Your task to perform on an android device: add a label to a message in the gmail app Image 0: 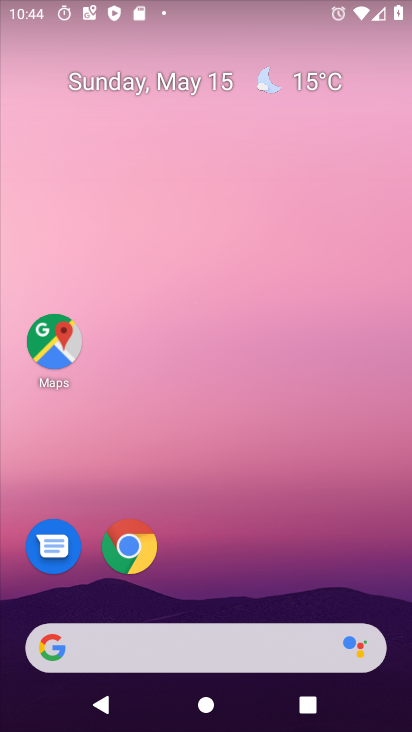
Step 0: drag from (357, 624) to (213, 59)
Your task to perform on an android device: add a label to a message in the gmail app Image 1: 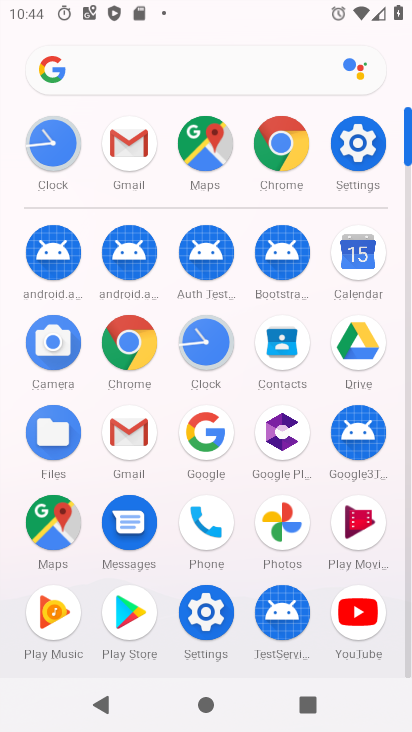
Step 1: click (138, 441)
Your task to perform on an android device: add a label to a message in the gmail app Image 2: 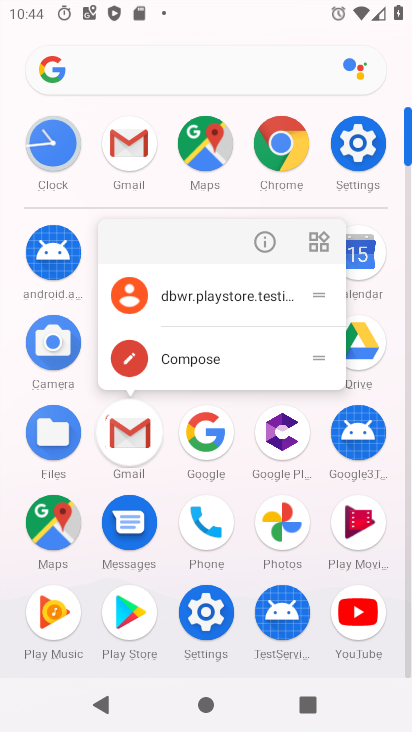
Step 2: click (138, 441)
Your task to perform on an android device: add a label to a message in the gmail app Image 3: 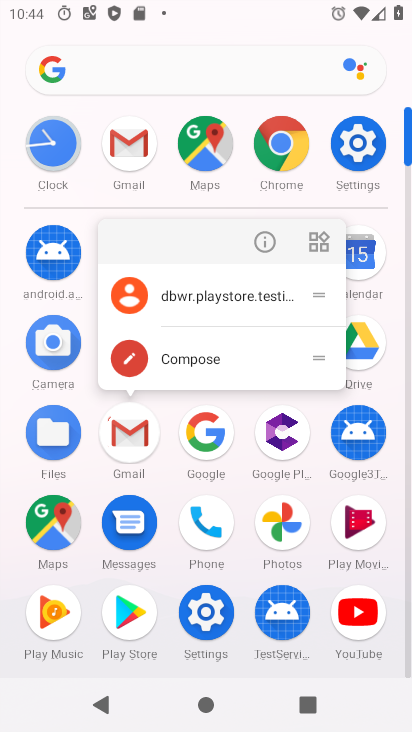
Step 3: click (138, 441)
Your task to perform on an android device: add a label to a message in the gmail app Image 4: 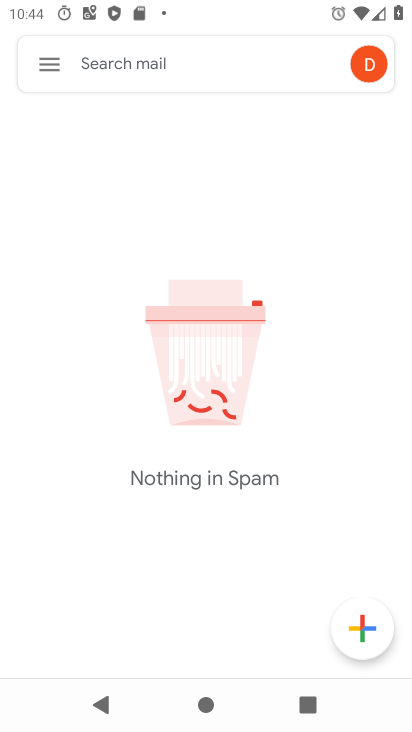
Step 4: click (131, 426)
Your task to perform on an android device: add a label to a message in the gmail app Image 5: 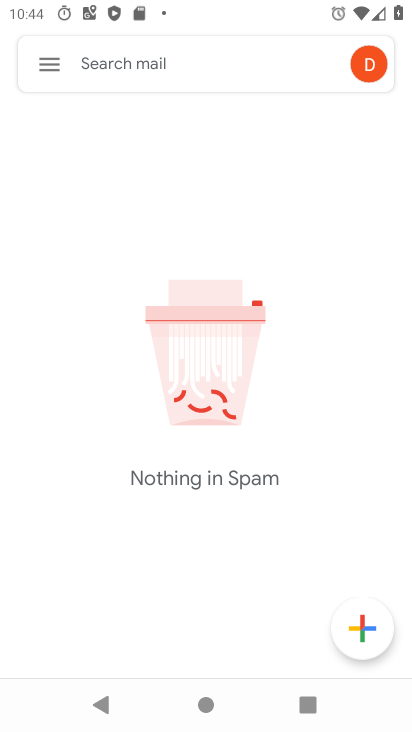
Step 5: click (53, 73)
Your task to perform on an android device: add a label to a message in the gmail app Image 6: 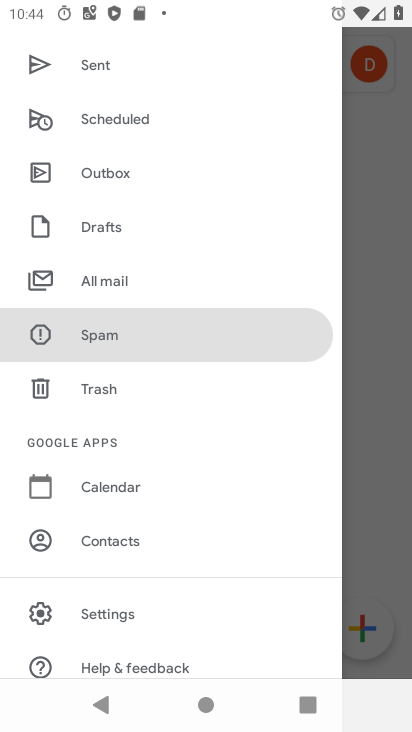
Step 6: click (105, 287)
Your task to perform on an android device: add a label to a message in the gmail app Image 7: 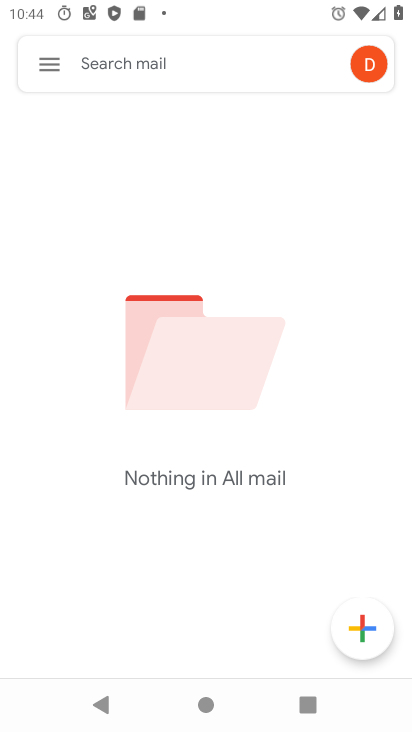
Step 7: task complete